Your task to perform on an android device: allow cookies in the chrome app Image 0: 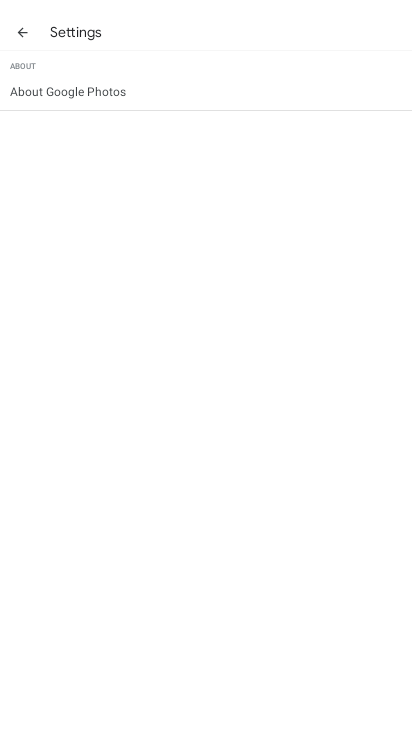
Step 0: press home button
Your task to perform on an android device: allow cookies in the chrome app Image 1: 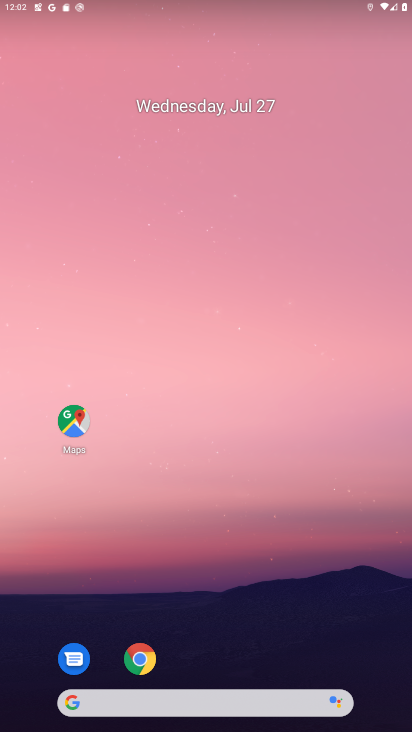
Step 1: drag from (269, 678) to (361, 7)
Your task to perform on an android device: allow cookies in the chrome app Image 2: 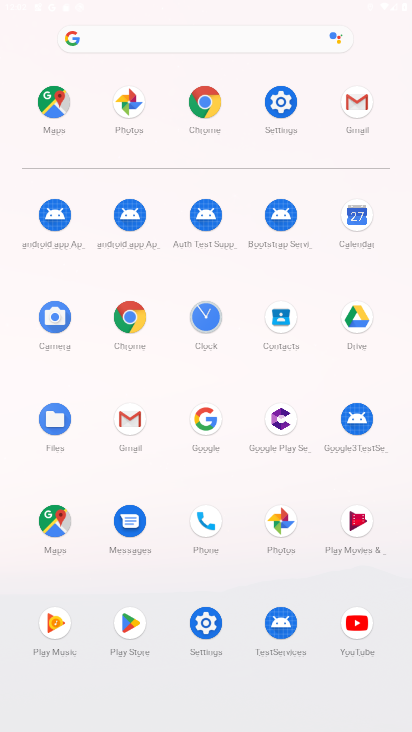
Step 2: click (117, 319)
Your task to perform on an android device: allow cookies in the chrome app Image 3: 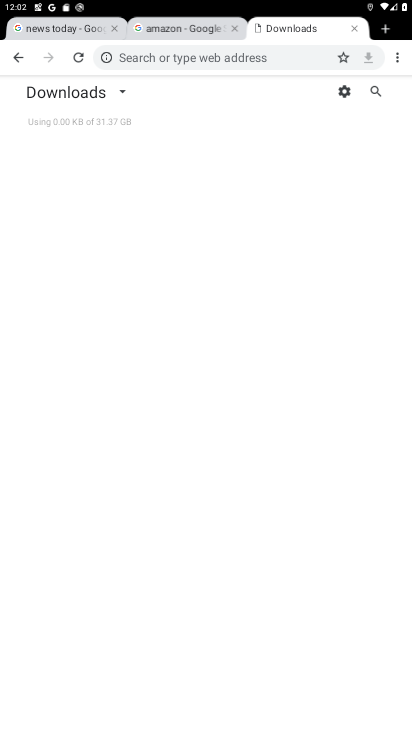
Step 3: press back button
Your task to perform on an android device: allow cookies in the chrome app Image 4: 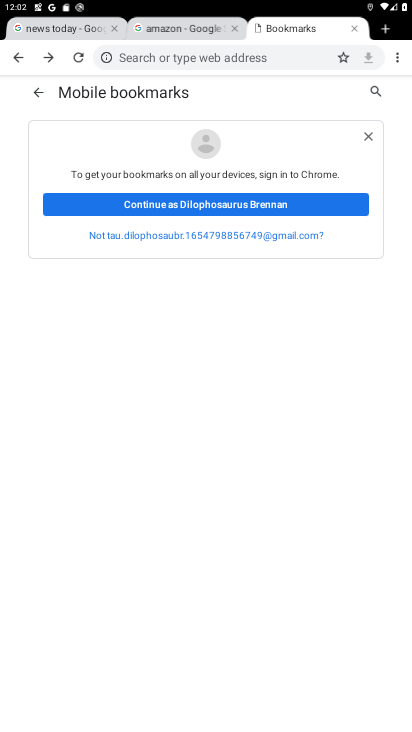
Step 4: press back button
Your task to perform on an android device: allow cookies in the chrome app Image 5: 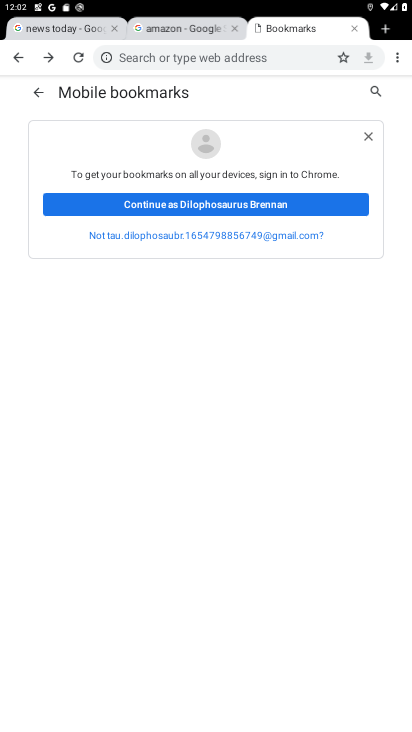
Step 5: press back button
Your task to perform on an android device: allow cookies in the chrome app Image 6: 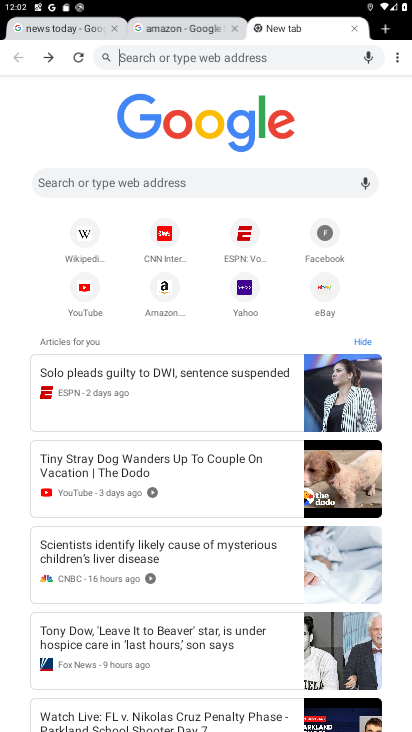
Step 6: click (402, 51)
Your task to perform on an android device: allow cookies in the chrome app Image 7: 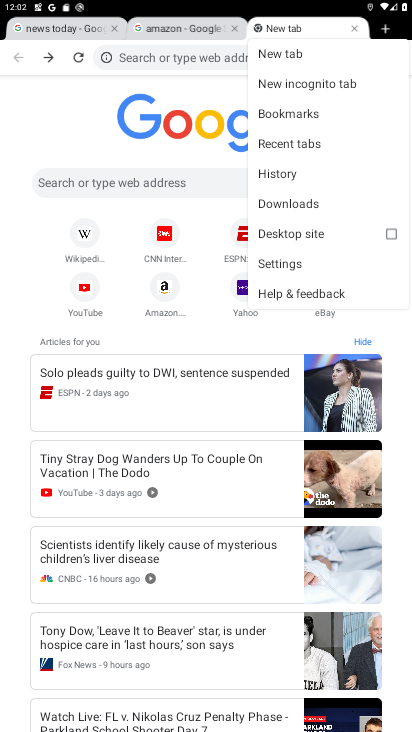
Step 7: click (295, 252)
Your task to perform on an android device: allow cookies in the chrome app Image 8: 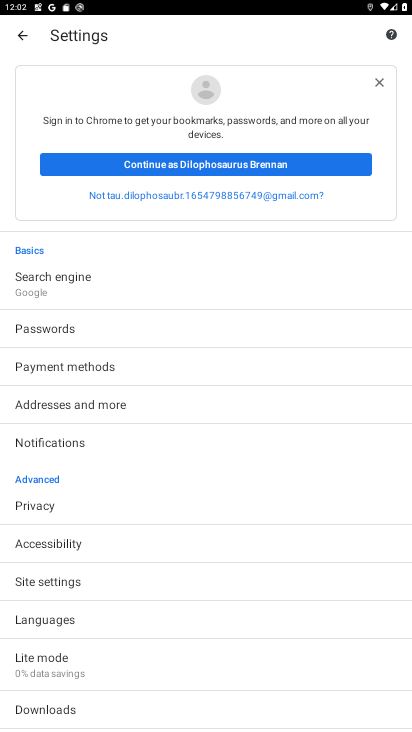
Step 8: click (22, 579)
Your task to perform on an android device: allow cookies in the chrome app Image 9: 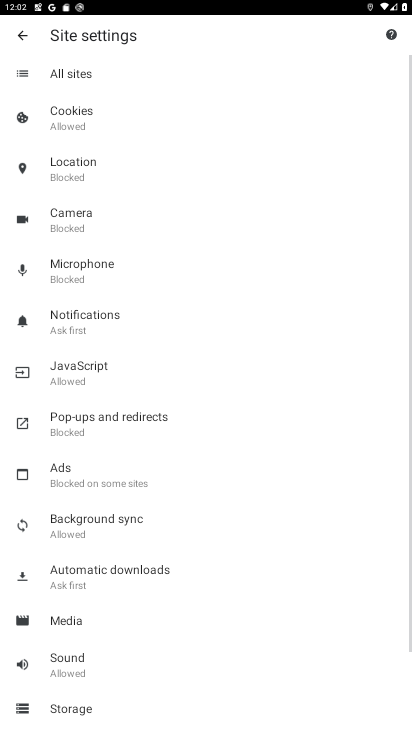
Step 9: click (100, 112)
Your task to perform on an android device: allow cookies in the chrome app Image 10: 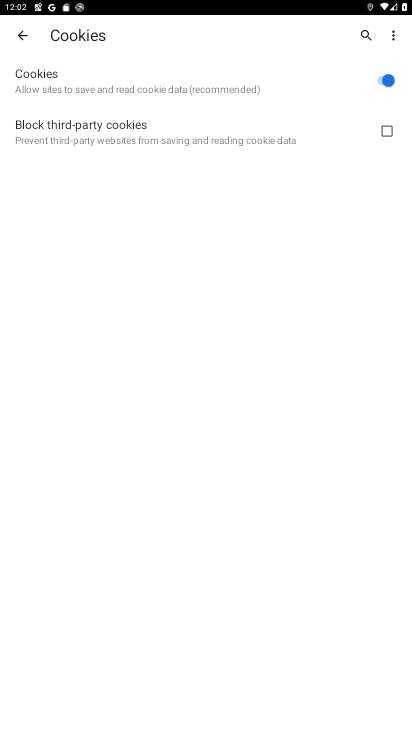
Step 10: task complete